Your task to perform on an android device: Go to settings Image 0: 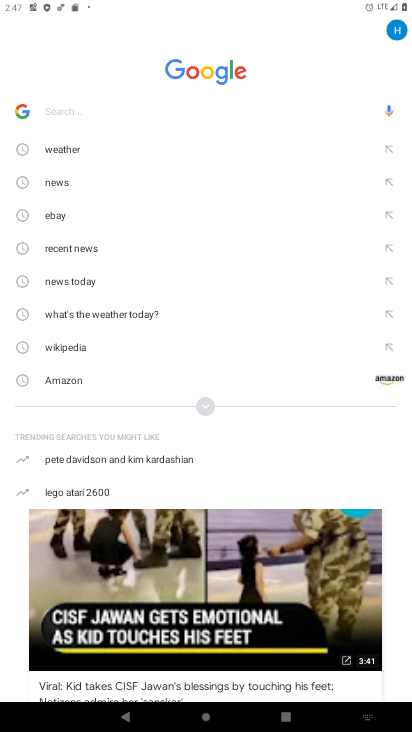
Step 0: press home button
Your task to perform on an android device: Go to settings Image 1: 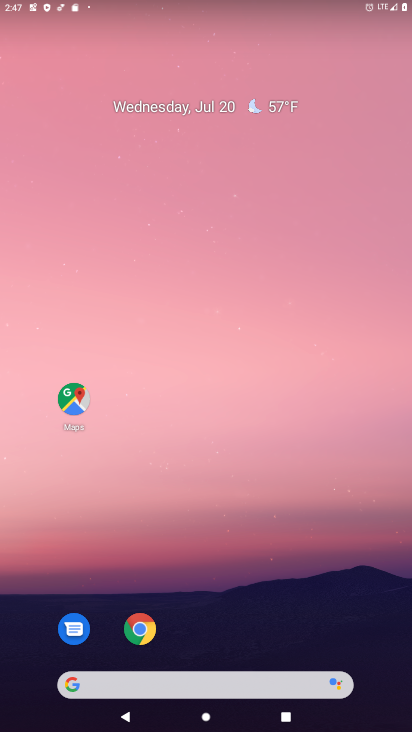
Step 1: drag from (365, 660) to (297, 128)
Your task to perform on an android device: Go to settings Image 2: 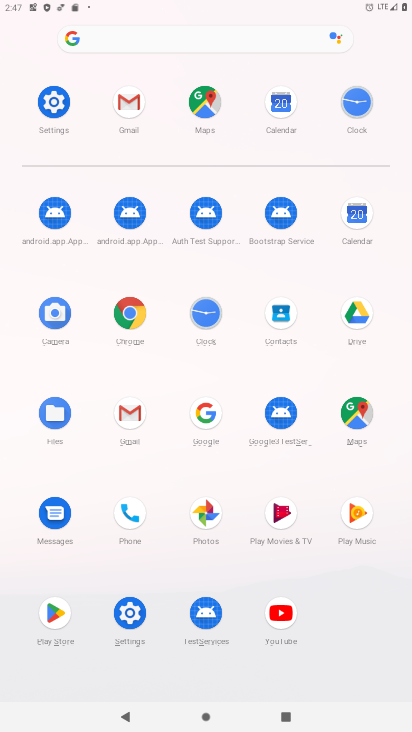
Step 2: click (128, 610)
Your task to perform on an android device: Go to settings Image 3: 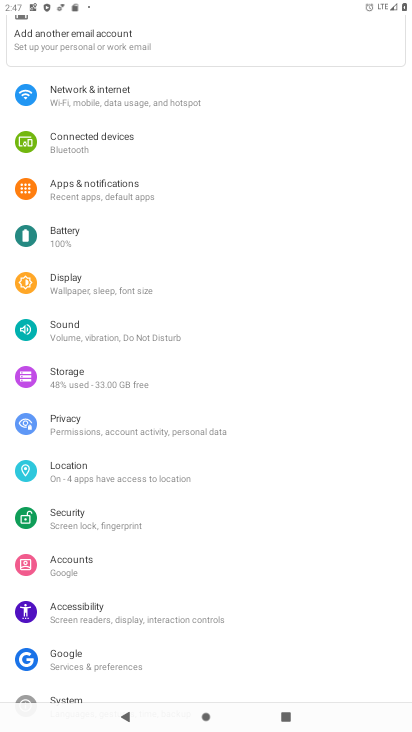
Step 3: task complete